Your task to perform on an android device: turn off notifications in google photos Image 0: 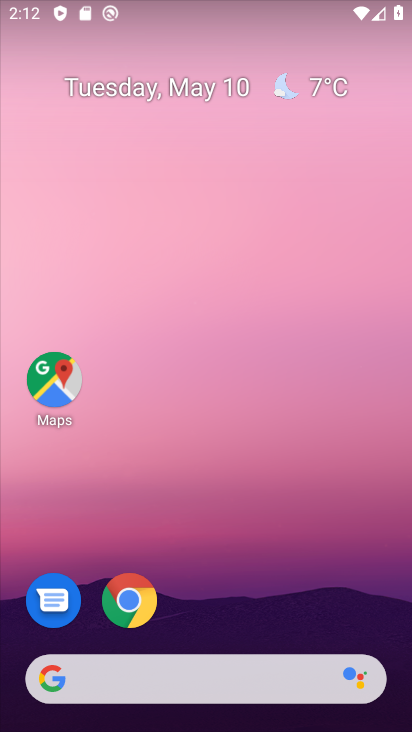
Step 0: drag from (254, 644) to (201, 169)
Your task to perform on an android device: turn off notifications in google photos Image 1: 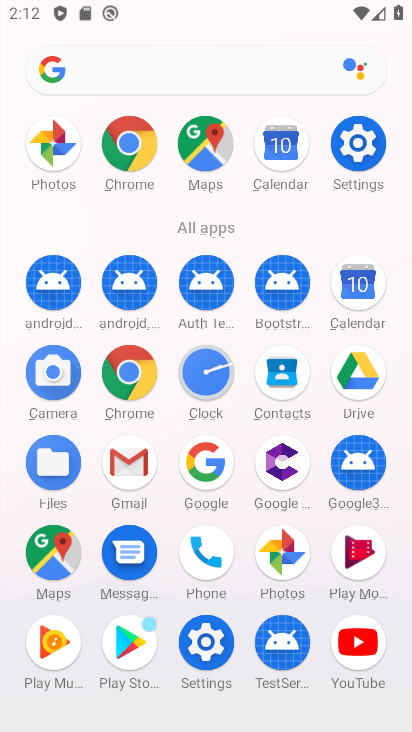
Step 1: click (294, 554)
Your task to perform on an android device: turn off notifications in google photos Image 2: 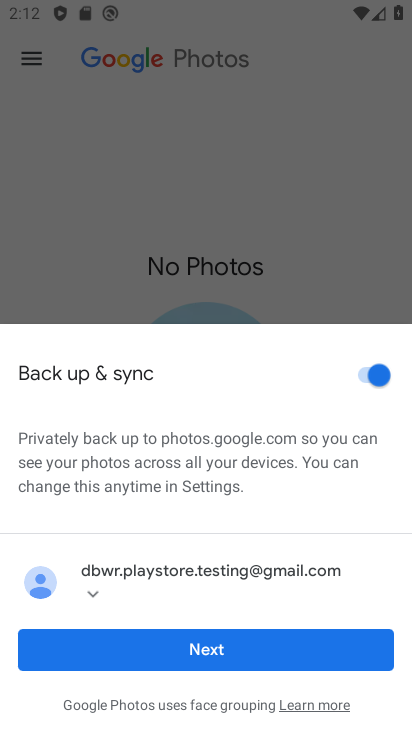
Step 2: click (223, 658)
Your task to perform on an android device: turn off notifications in google photos Image 3: 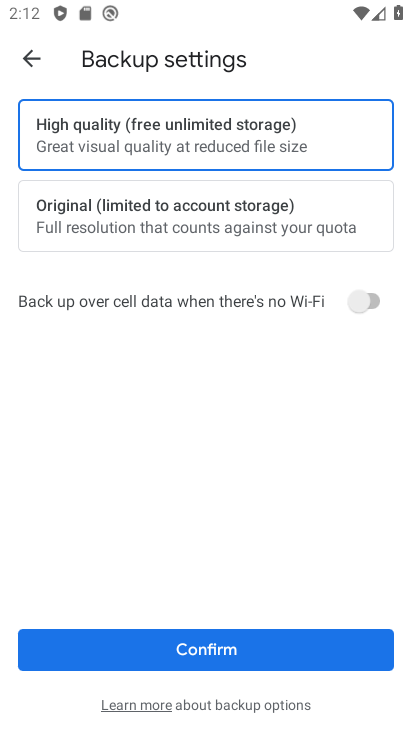
Step 3: click (31, 54)
Your task to perform on an android device: turn off notifications in google photos Image 4: 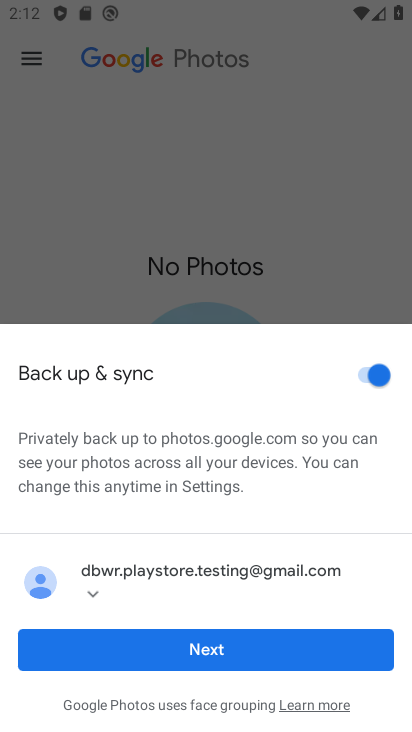
Step 4: click (181, 647)
Your task to perform on an android device: turn off notifications in google photos Image 5: 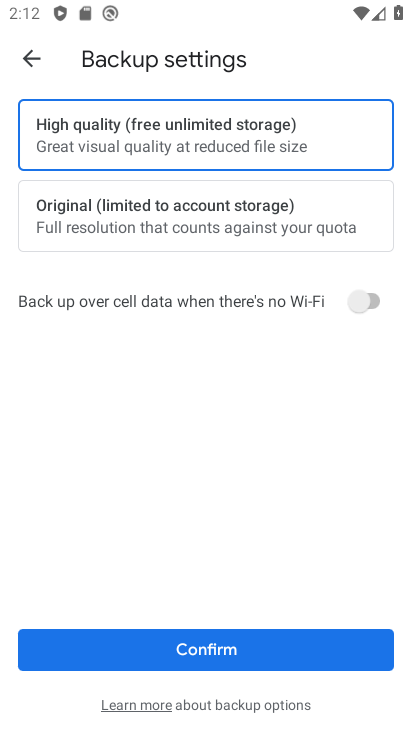
Step 5: click (224, 658)
Your task to perform on an android device: turn off notifications in google photos Image 6: 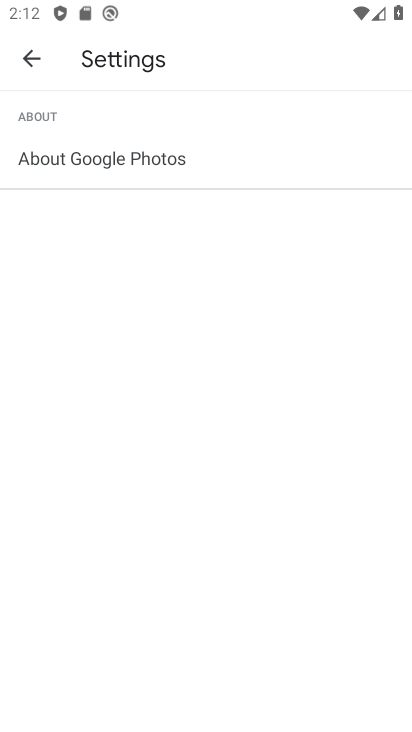
Step 6: click (40, 54)
Your task to perform on an android device: turn off notifications in google photos Image 7: 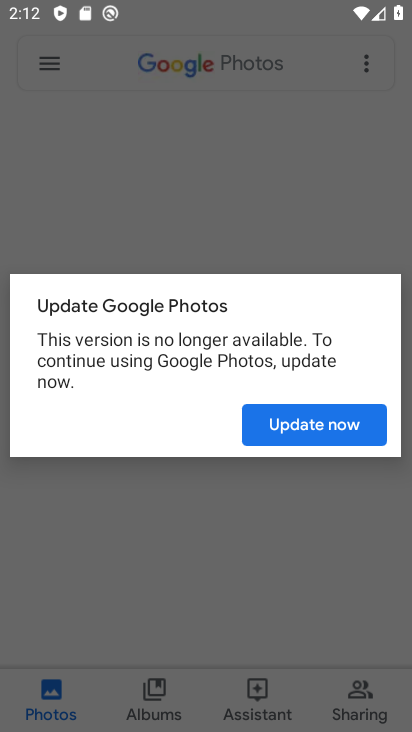
Step 7: click (278, 433)
Your task to perform on an android device: turn off notifications in google photos Image 8: 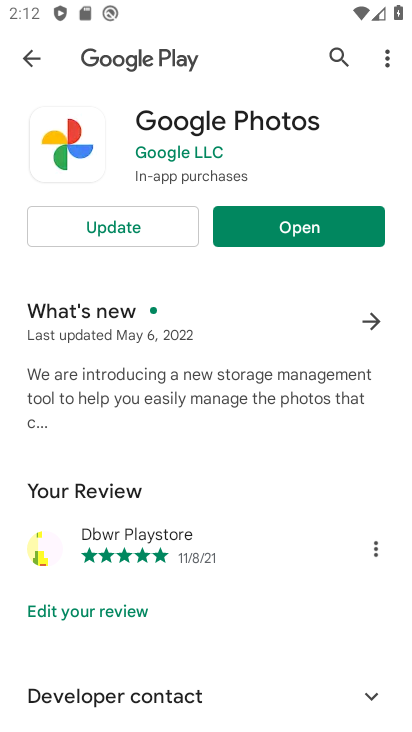
Step 8: click (127, 240)
Your task to perform on an android device: turn off notifications in google photos Image 9: 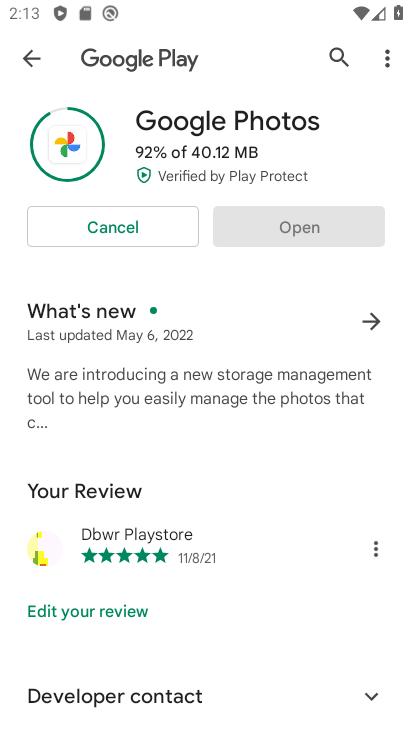
Step 9: drag from (88, 404) to (69, 348)
Your task to perform on an android device: turn off notifications in google photos Image 10: 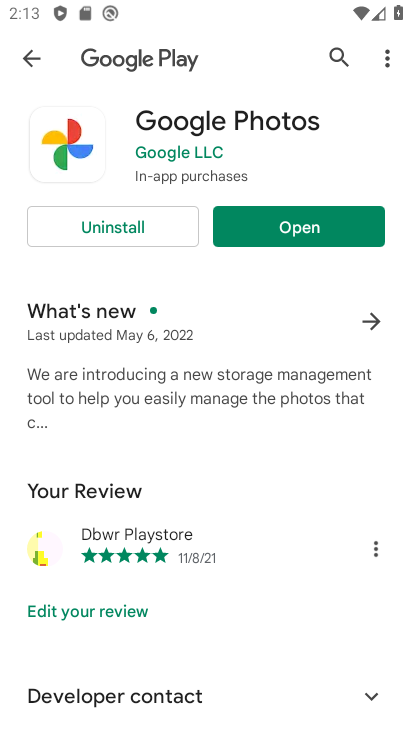
Step 10: click (334, 236)
Your task to perform on an android device: turn off notifications in google photos Image 11: 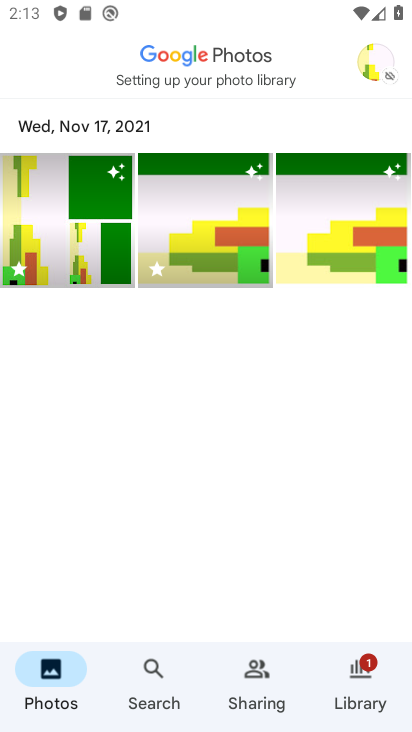
Step 11: click (383, 64)
Your task to perform on an android device: turn off notifications in google photos Image 12: 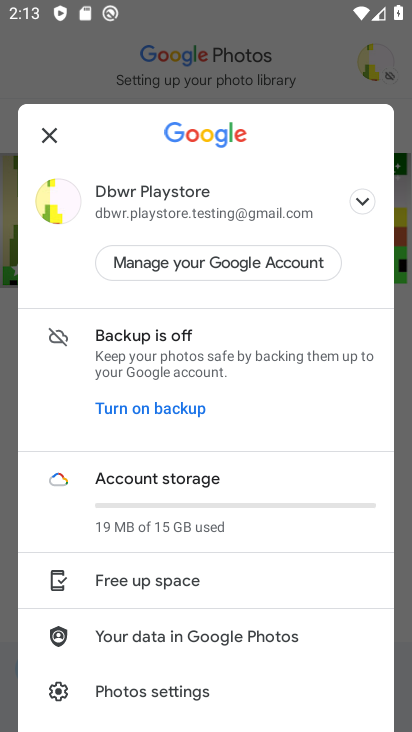
Step 12: click (189, 684)
Your task to perform on an android device: turn off notifications in google photos Image 13: 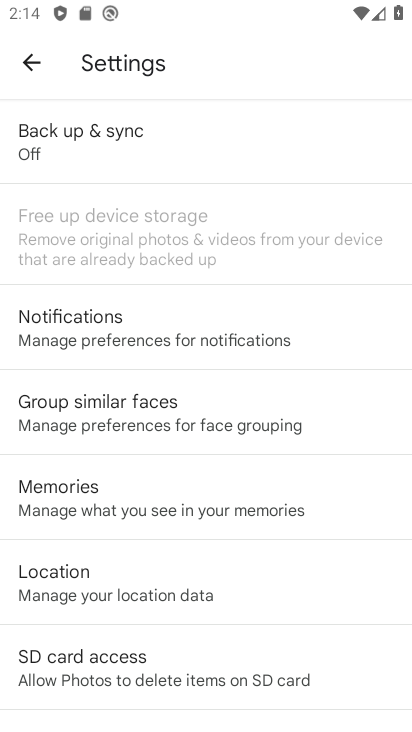
Step 13: click (151, 344)
Your task to perform on an android device: turn off notifications in google photos Image 14: 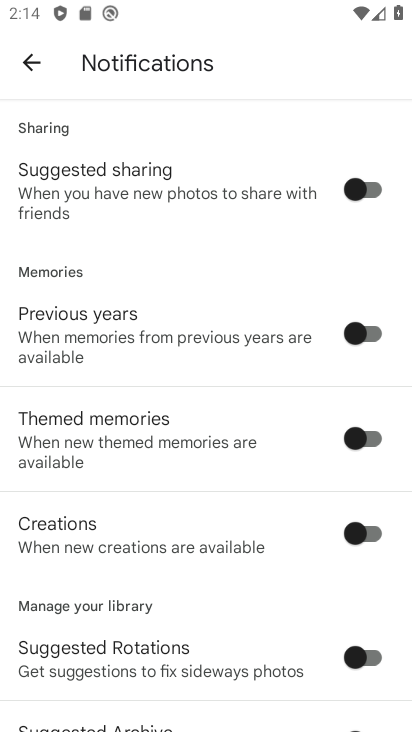
Step 14: drag from (220, 517) to (224, 199)
Your task to perform on an android device: turn off notifications in google photos Image 15: 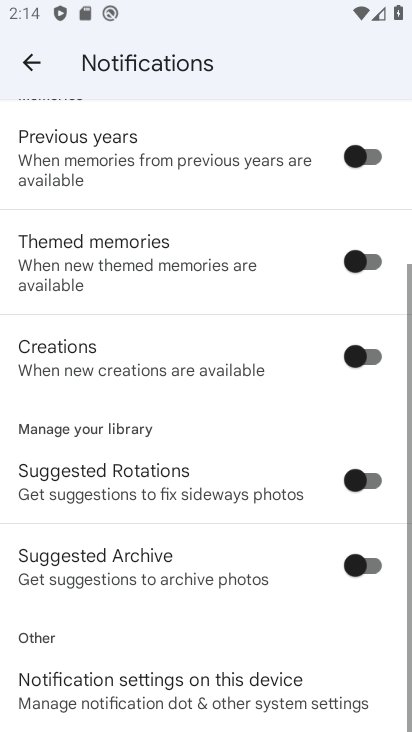
Step 15: drag from (272, 568) to (250, 308)
Your task to perform on an android device: turn off notifications in google photos Image 16: 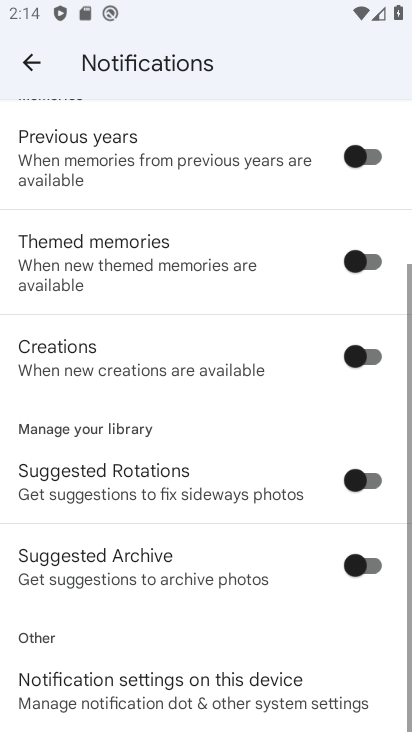
Step 16: click (197, 649)
Your task to perform on an android device: turn off notifications in google photos Image 17: 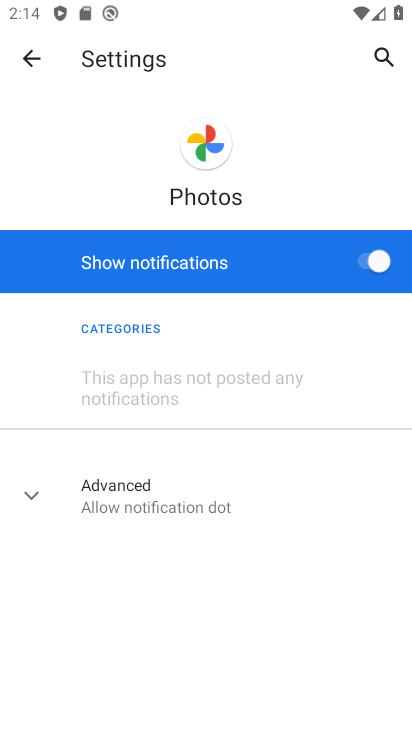
Step 17: click (365, 263)
Your task to perform on an android device: turn off notifications in google photos Image 18: 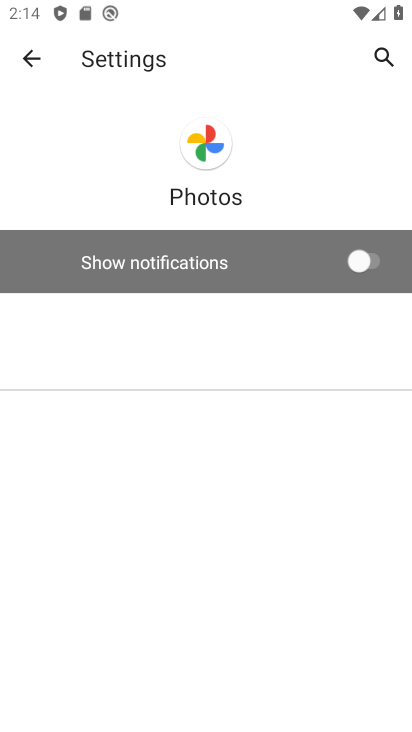
Step 18: task complete